Your task to perform on an android device: Open settings on Google Maps Image 0: 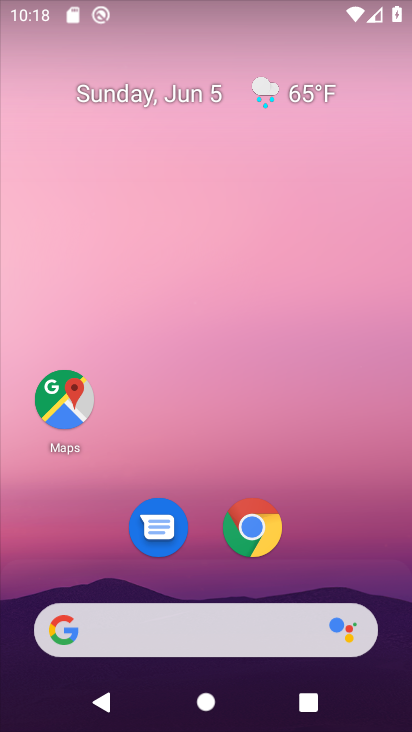
Step 0: click (53, 383)
Your task to perform on an android device: Open settings on Google Maps Image 1: 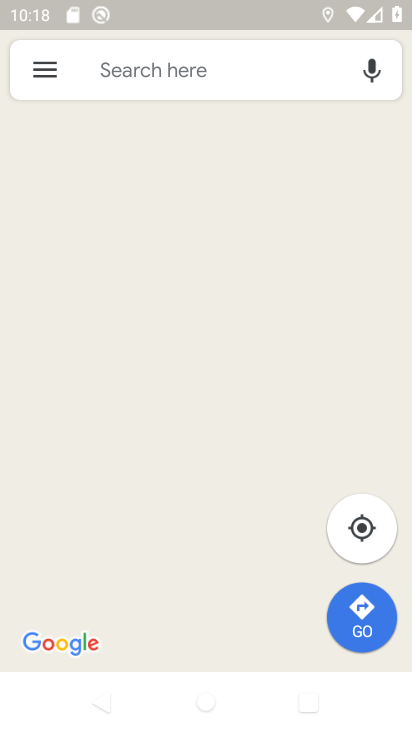
Step 1: click (48, 64)
Your task to perform on an android device: Open settings on Google Maps Image 2: 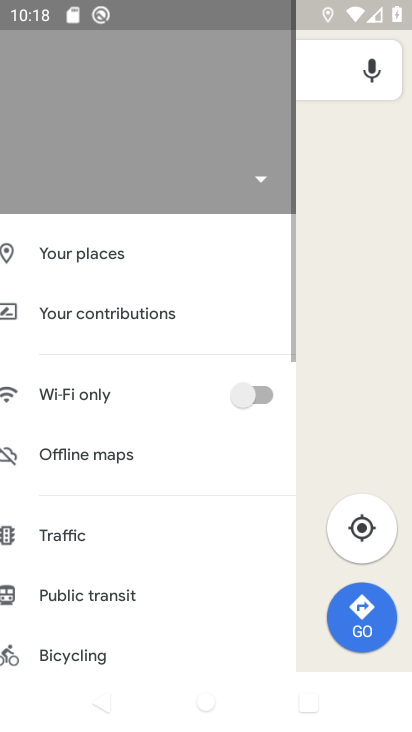
Step 2: drag from (180, 650) to (174, 12)
Your task to perform on an android device: Open settings on Google Maps Image 3: 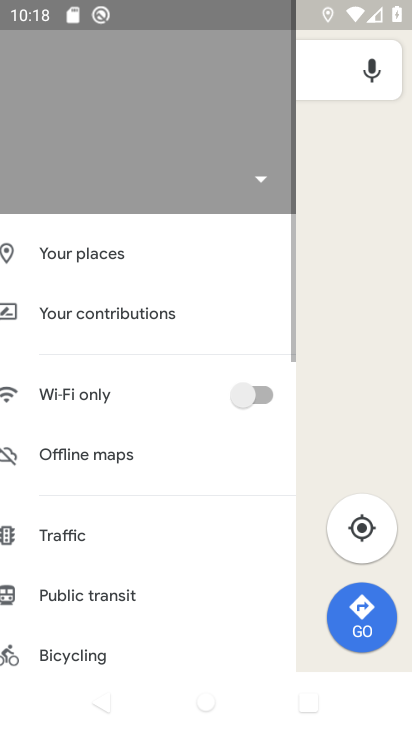
Step 3: drag from (166, 642) to (231, 23)
Your task to perform on an android device: Open settings on Google Maps Image 4: 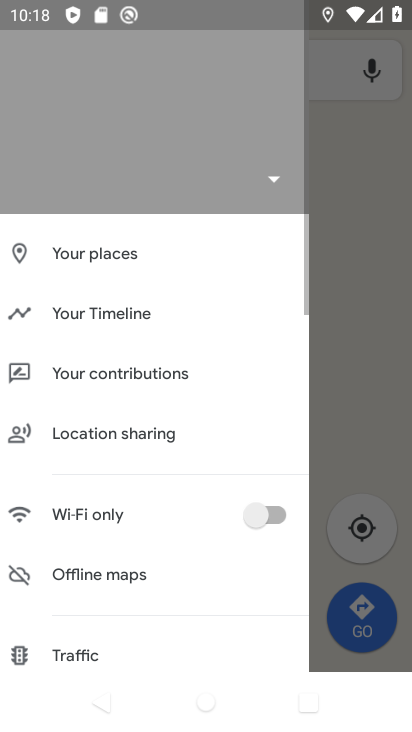
Step 4: drag from (167, 602) to (182, 160)
Your task to perform on an android device: Open settings on Google Maps Image 5: 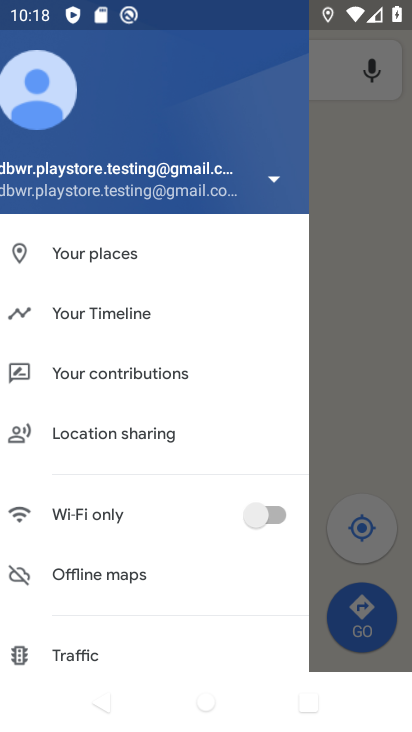
Step 5: drag from (151, 628) to (173, 74)
Your task to perform on an android device: Open settings on Google Maps Image 6: 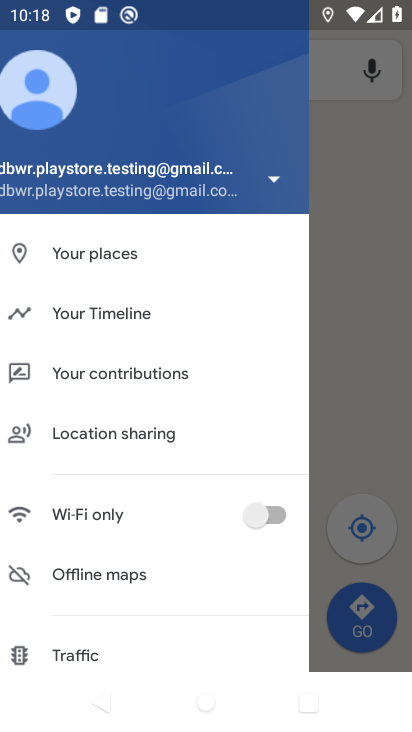
Step 6: drag from (150, 626) to (162, 170)
Your task to perform on an android device: Open settings on Google Maps Image 7: 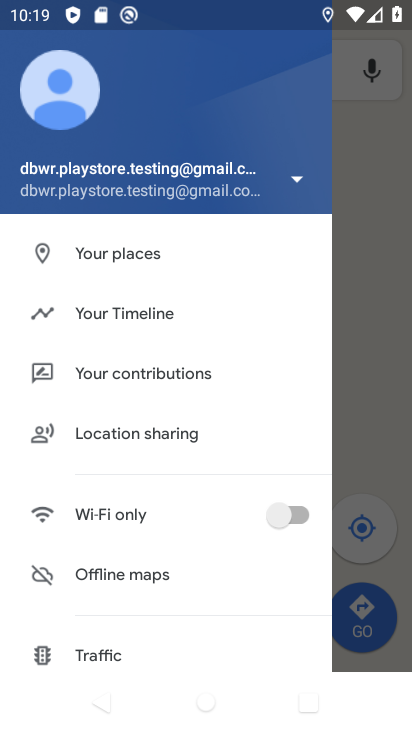
Step 7: drag from (201, 615) to (208, 117)
Your task to perform on an android device: Open settings on Google Maps Image 8: 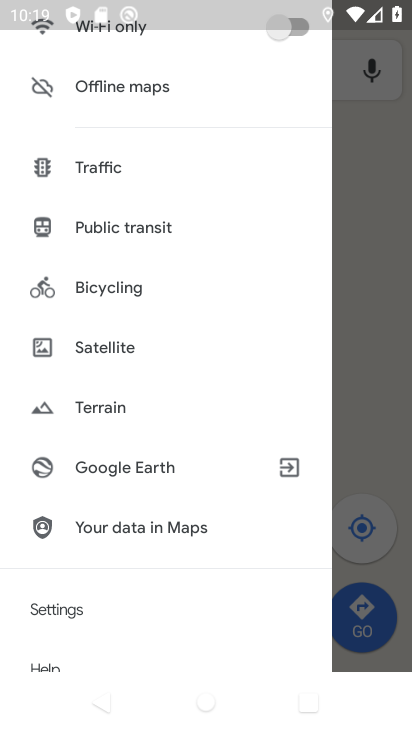
Step 8: drag from (165, 558) to (186, 162)
Your task to perform on an android device: Open settings on Google Maps Image 9: 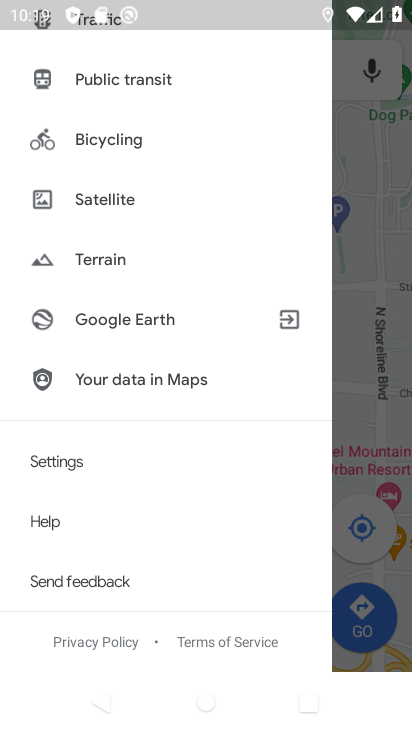
Step 9: click (122, 460)
Your task to perform on an android device: Open settings on Google Maps Image 10: 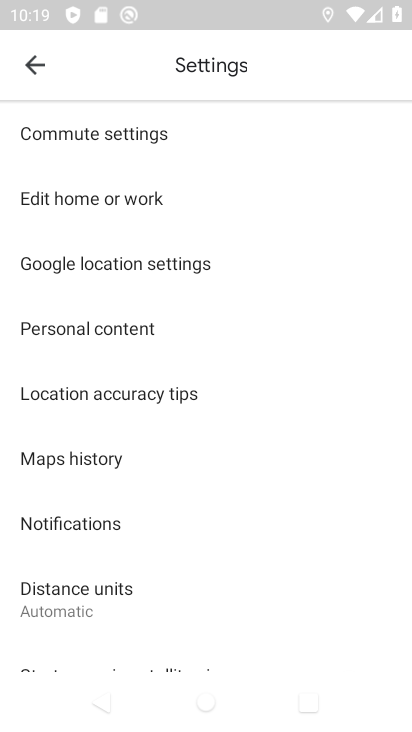
Step 10: task complete